Your task to perform on an android device: turn off translation in the chrome app Image 0: 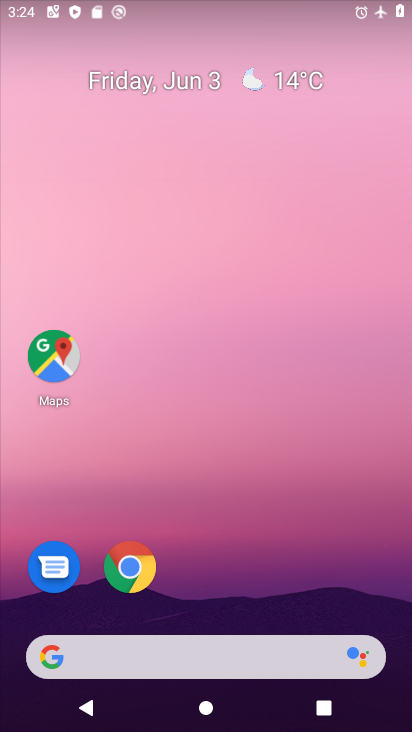
Step 0: drag from (286, 678) to (250, 83)
Your task to perform on an android device: turn off translation in the chrome app Image 1: 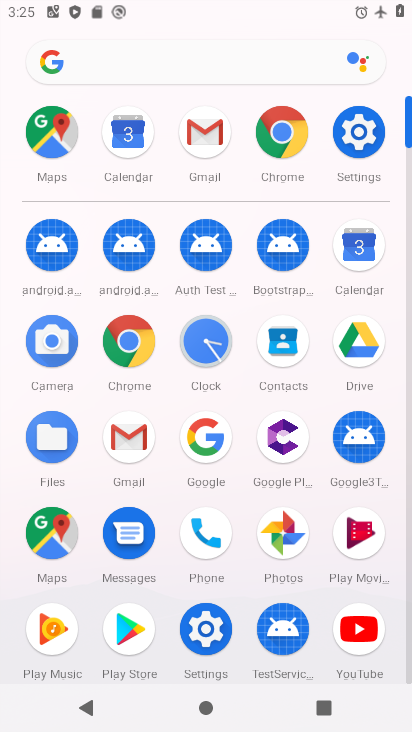
Step 1: click (299, 125)
Your task to perform on an android device: turn off translation in the chrome app Image 2: 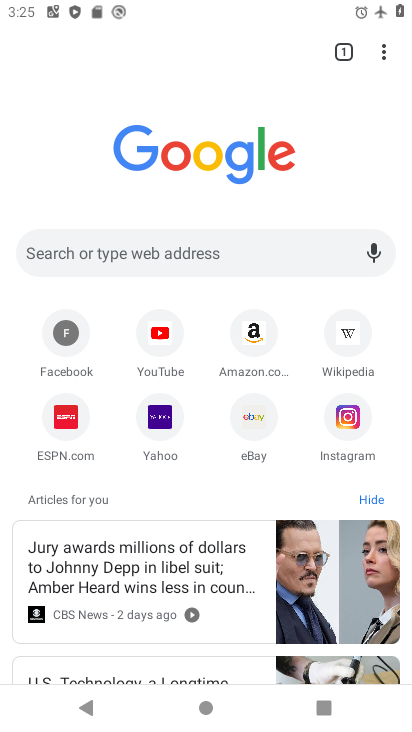
Step 2: click (384, 56)
Your task to perform on an android device: turn off translation in the chrome app Image 3: 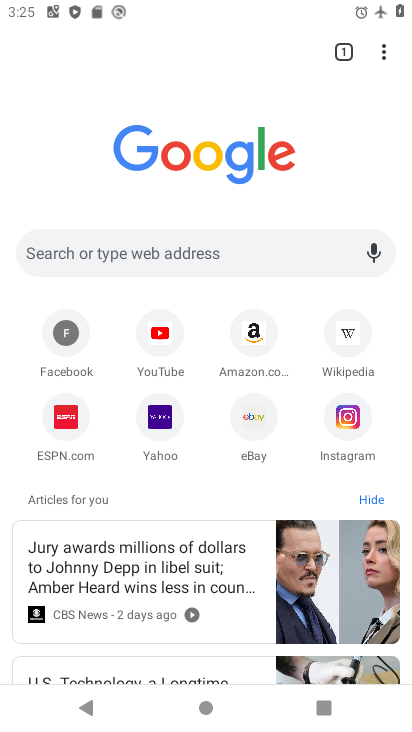
Step 3: click (383, 54)
Your task to perform on an android device: turn off translation in the chrome app Image 4: 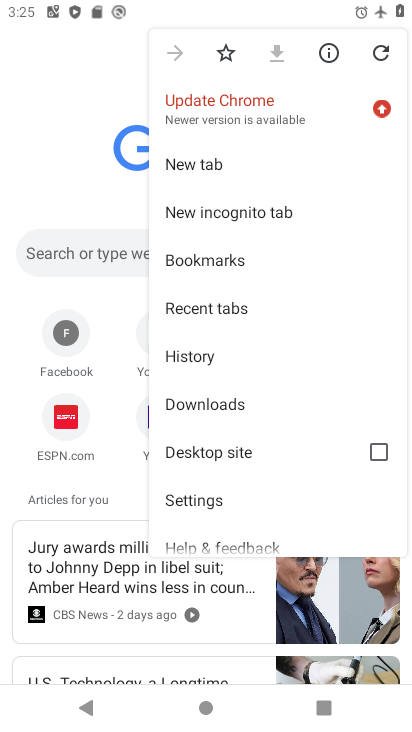
Step 4: click (193, 494)
Your task to perform on an android device: turn off translation in the chrome app Image 5: 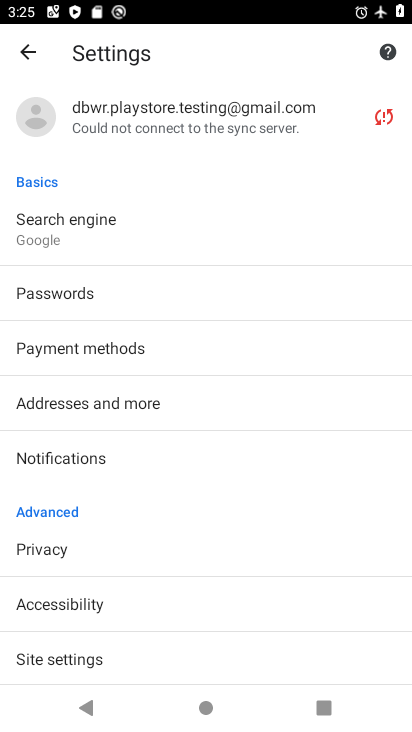
Step 5: drag from (115, 601) to (95, 441)
Your task to perform on an android device: turn off translation in the chrome app Image 6: 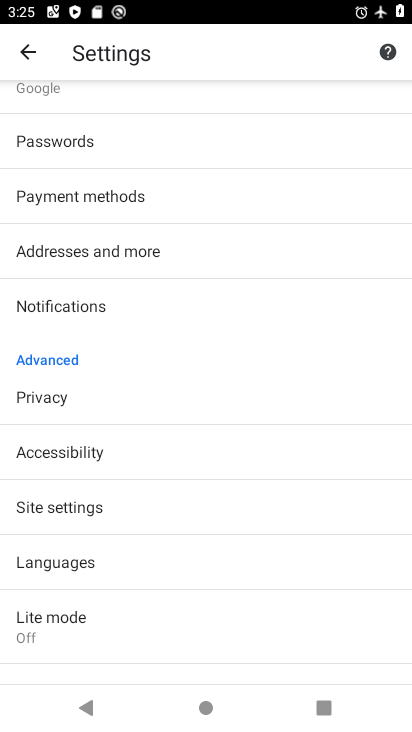
Step 6: click (72, 572)
Your task to perform on an android device: turn off translation in the chrome app Image 7: 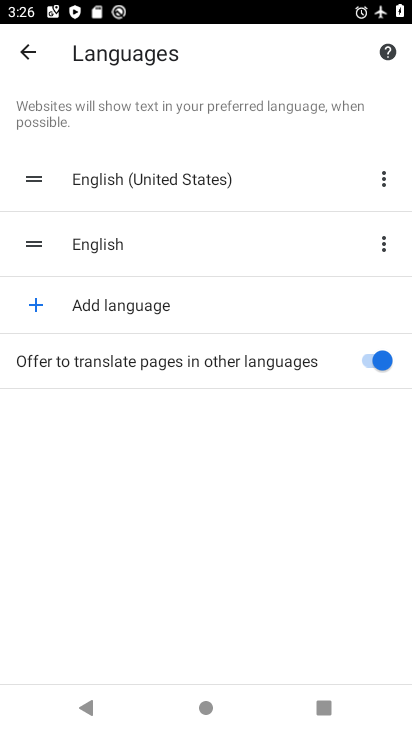
Step 7: click (362, 364)
Your task to perform on an android device: turn off translation in the chrome app Image 8: 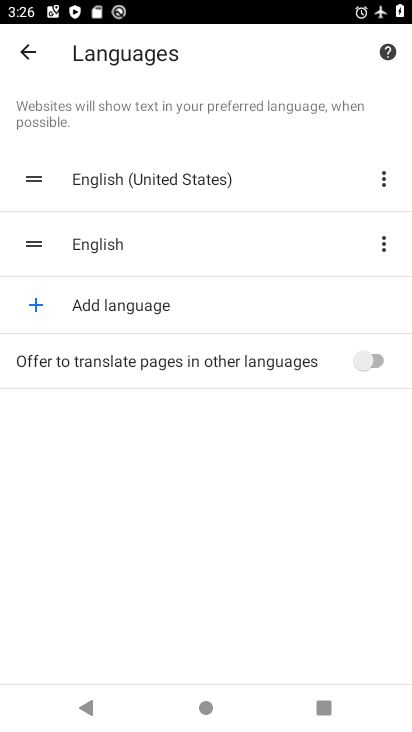
Step 8: task complete